Your task to perform on an android device: all mails in gmail Image 0: 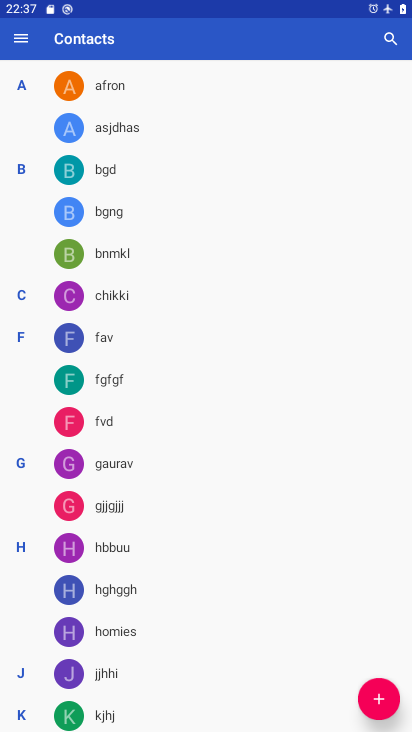
Step 0: press home button
Your task to perform on an android device: all mails in gmail Image 1: 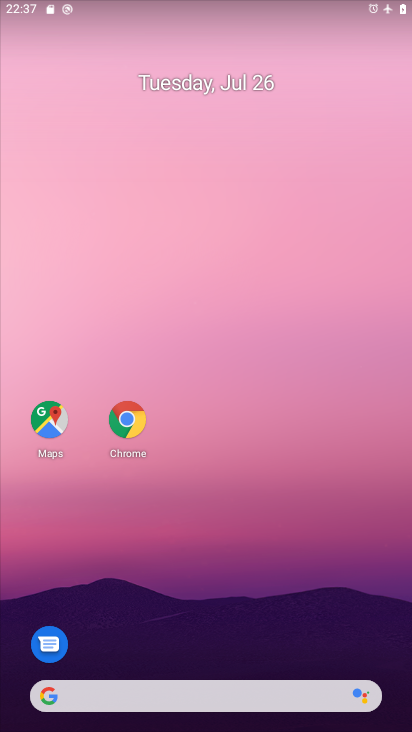
Step 1: drag from (139, 653) to (282, 193)
Your task to perform on an android device: all mails in gmail Image 2: 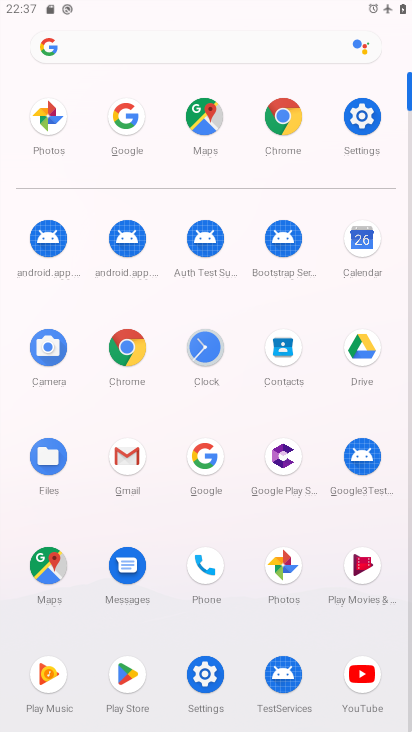
Step 2: click (133, 453)
Your task to perform on an android device: all mails in gmail Image 3: 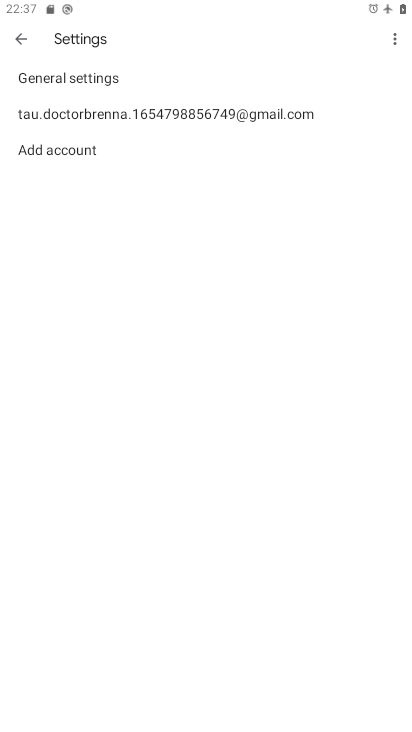
Step 3: click (20, 19)
Your task to perform on an android device: all mails in gmail Image 4: 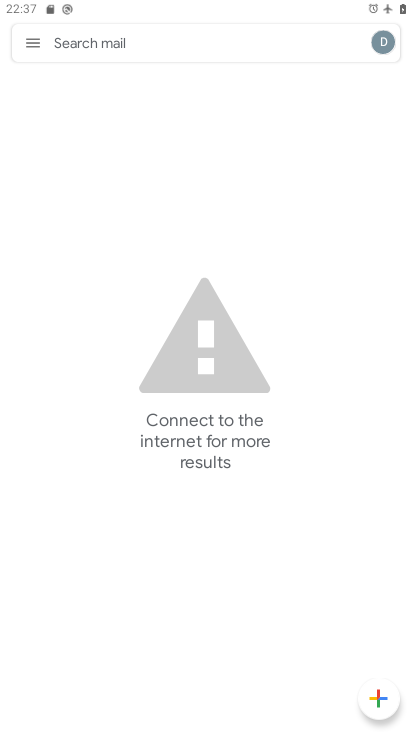
Step 4: click (27, 46)
Your task to perform on an android device: all mails in gmail Image 5: 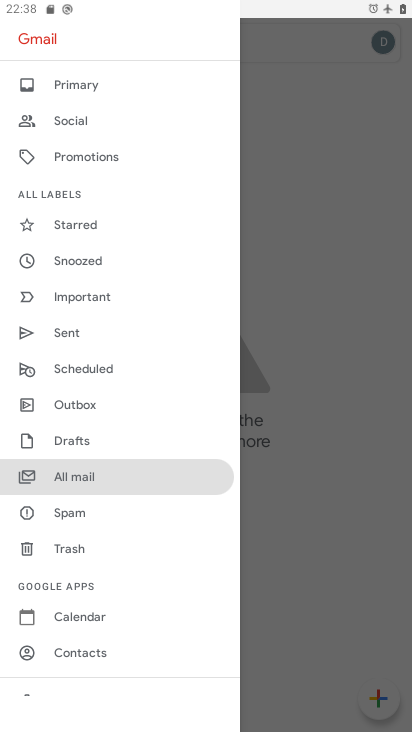
Step 5: click (80, 475)
Your task to perform on an android device: all mails in gmail Image 6: 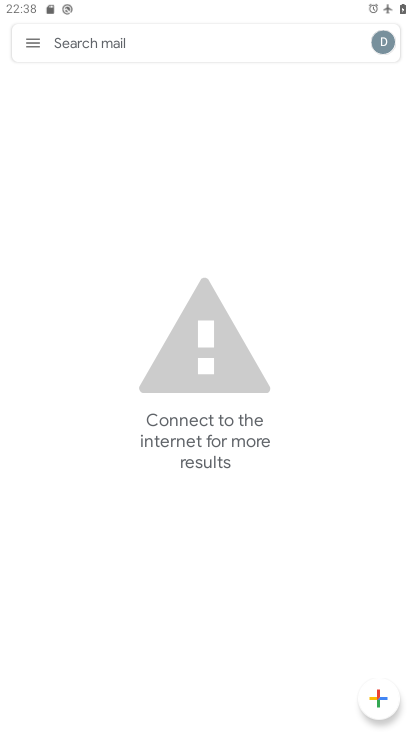
Step 6: task complete